Your task to perform on an android device: show emergency info Image 0: 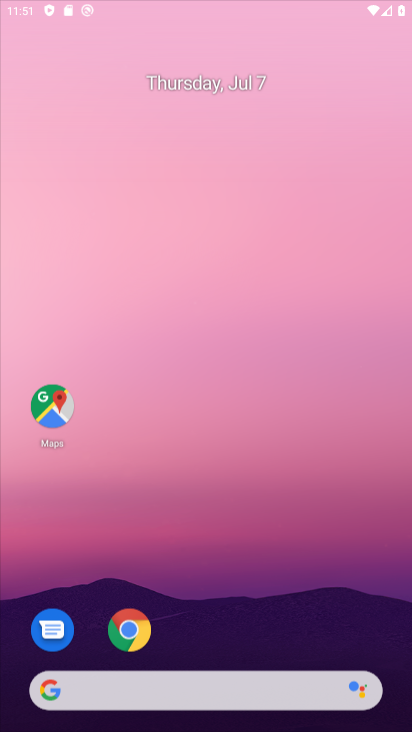
Step 0: drag from (361, 579) to (258, 38)
Your task to perform on an android device: show emergency info Image 1: 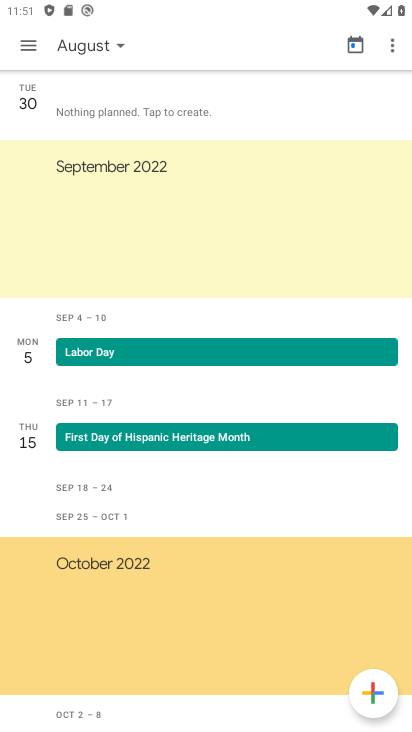
Step 1: press home button
Your task to perform on an android device: show emergency info Image 2: 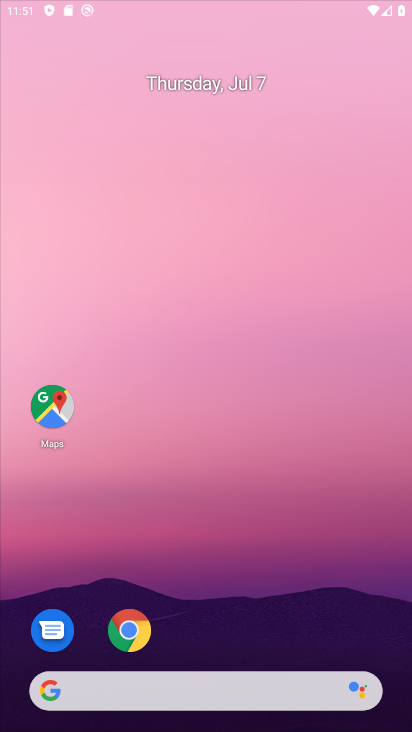
Step 2: drag from (365, 696) to (231, 91)
Your task to perform on an android device: show emergency info Image 3: 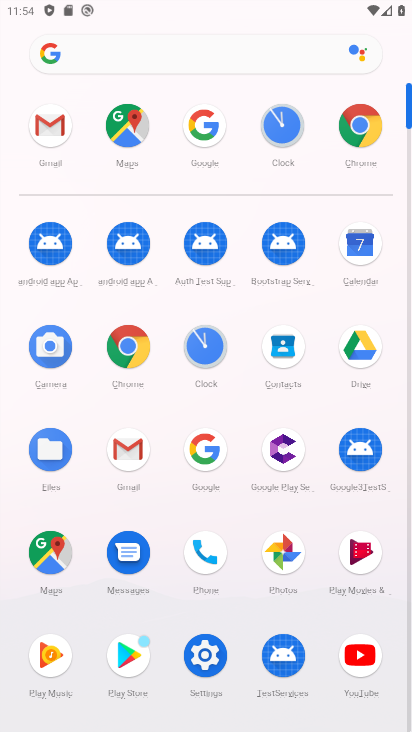
Step 3: click (211, 661)
Your task to perform on an android device: show emergency info Image 4: 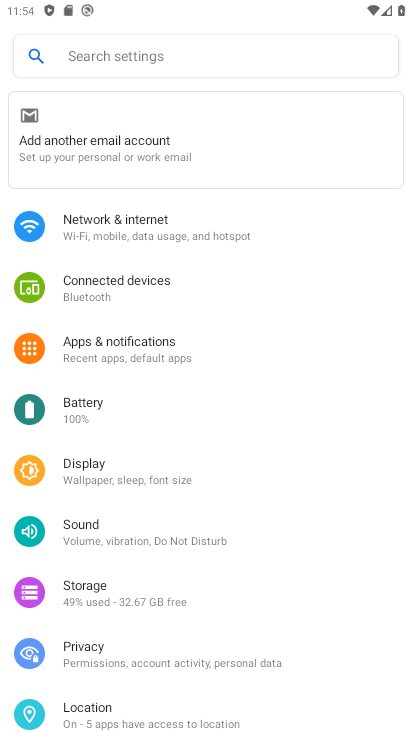
Step 4: drag from (145, 677) to (239, 46)
Your task to perform on an android device: show emergency info Image 5: 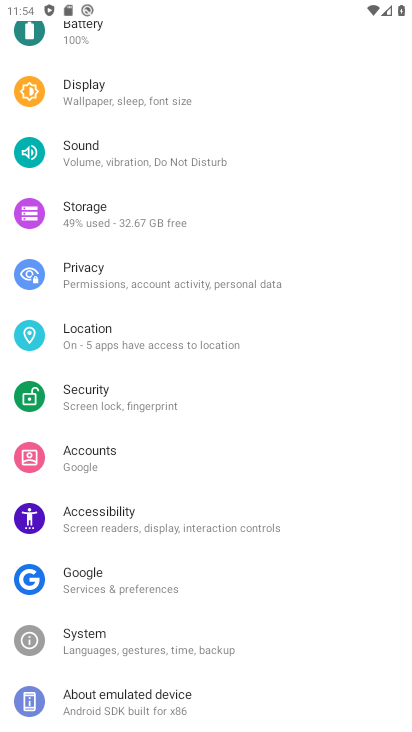
Step 5: click (130, 696)
Your task to perform on an android device: show emergency info Image 6: 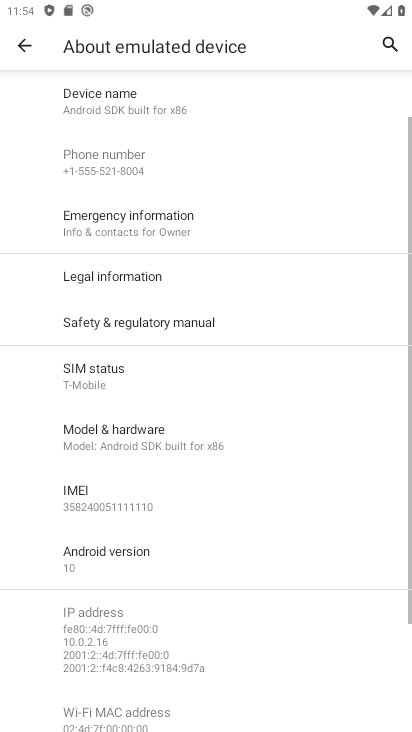
Step 6: click (140, 213)
Your task to perform on an android device: show emergency info Image 7: 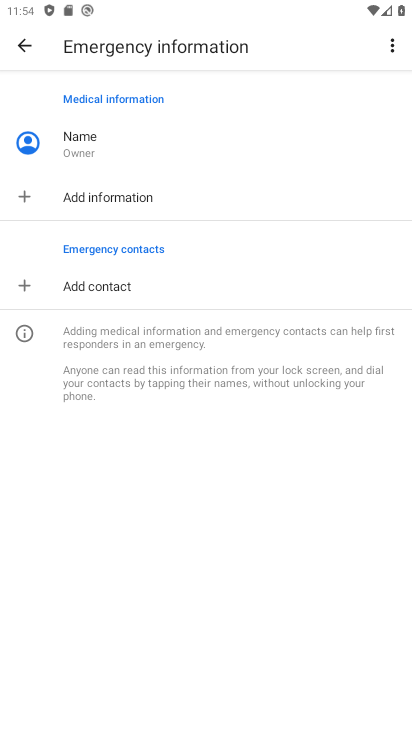
Step 7: task complete